Your task to perform on an android device: toggle priority inbox in the gmail app Image 0: 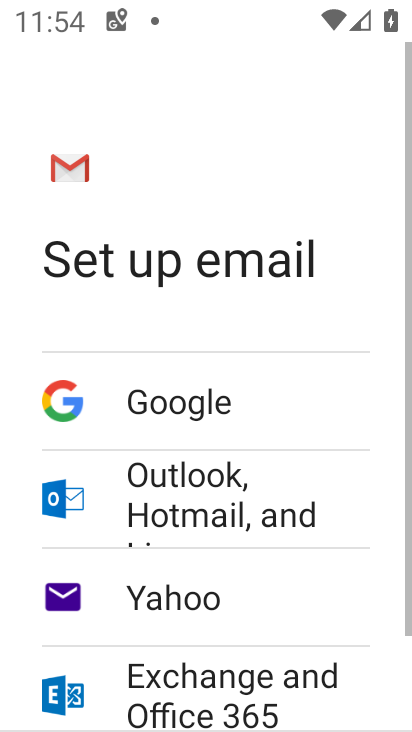
Step 0: press home button
Your task to perform on an android device: toggle priority inbox in the gmail app Image 1: 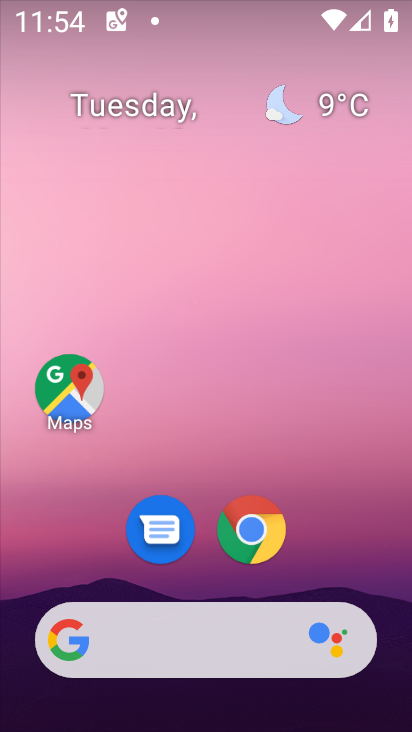
Step 1: drag from (311, 562) to (328, 180)
Your task to perform on an android device: toggle priority inbox in the gmail app Image 2: 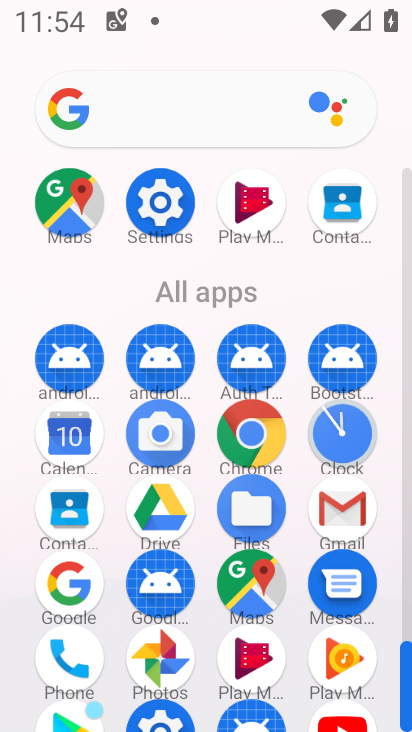
Step 2: click (338, 511)
Your task to perform on an android device: toggle priority inbox in the gmail app Image 3: 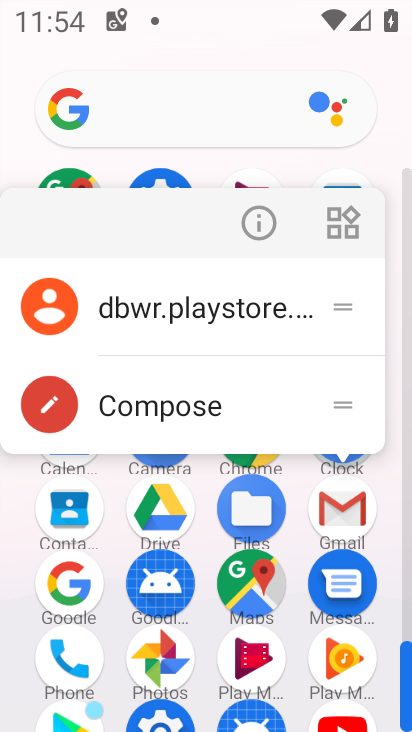
Step 3: click (359, 496)
Your task to perform on an android device: toggle priority inbox in the gmail app Image 4: 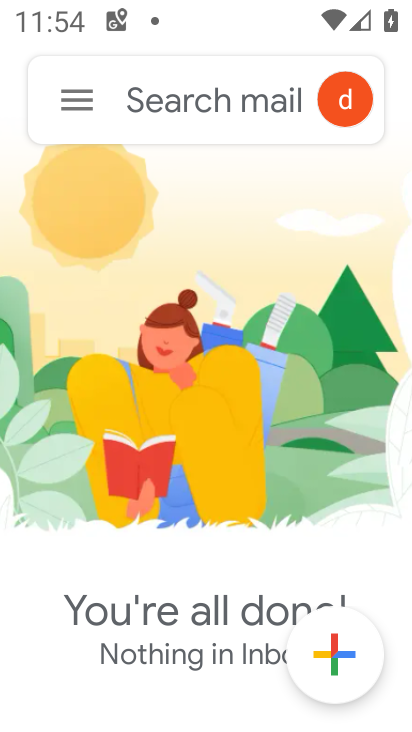
Step 4: click (83, 98)
Your task to perform on an android device: toggle priority inbox in the gmail app Image 5: 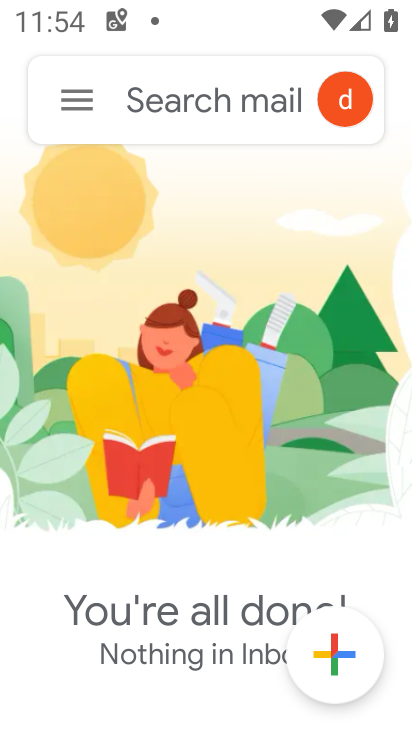
Step 5: click (74, 111)
Your task to perform on an android device: toggle priority inbox in the gmail app Image 6: 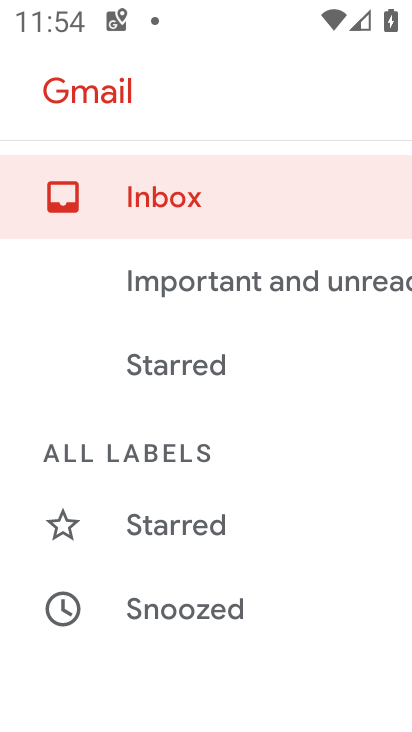
Step 6: drag from (224, 618) to (232, 280)
Your task to perform on an android device: toggle priority inbox in the gmail app Image 7: 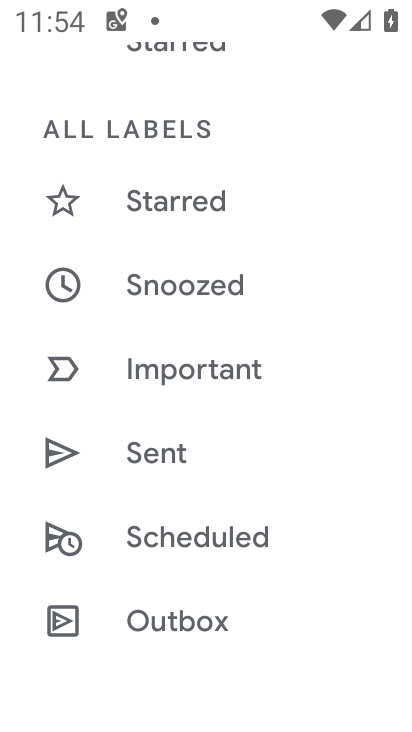
Step 7: drag from (276, 597) to (259, 173)
Your task to perform on an android device: toggle priority inbox in the gmail app Image 8: 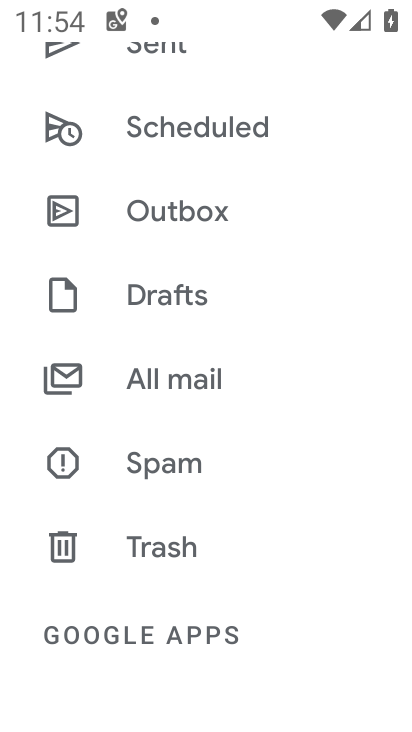
Step 8: drag from (192, 647) to (205, 168)
Your task to perform on an android device: toggle priority inbox in the gmail app Image 9: 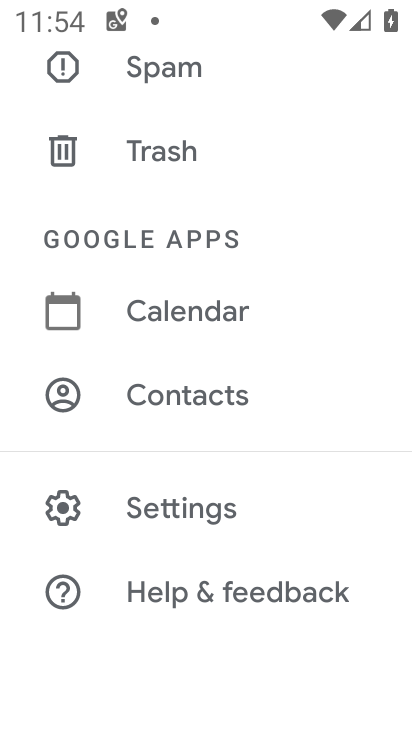
Step 9: click (182, 514)
Your task to perform on an android device: toggle priority inbox in the gmail app Image 10: 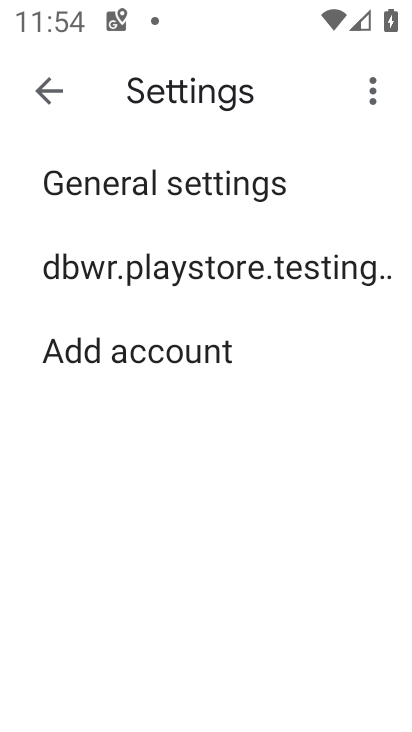
Step 10: click (201, 266)
Your task to perform on an android device: toggle priority inbox in the gmail app Image 11: 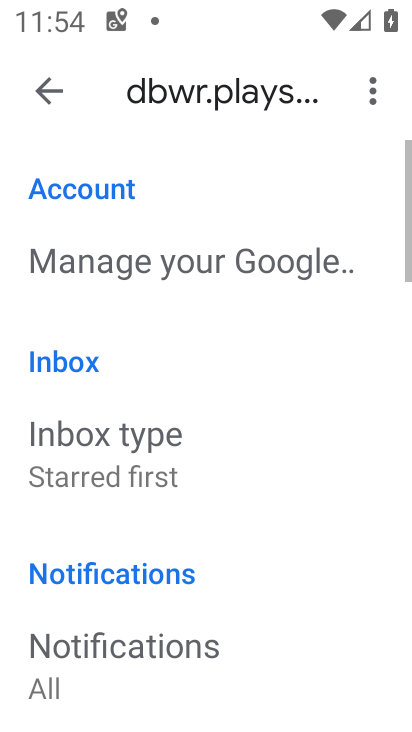
Step 11: drag from (245, 602) to (248, 229)
Your task to perform on an android device: toggle priority inbox in the gmail app Image 12: 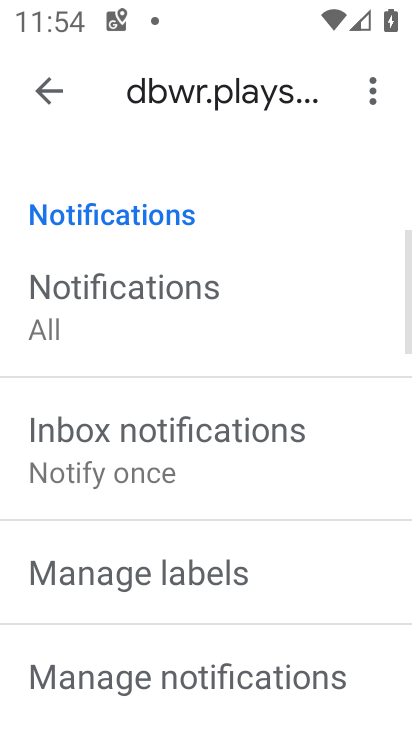
Step 12: drag from (224, 640) to (256, 268)
Your task to perform on an android device: toggle priority inbox in the gmail app Image 13: 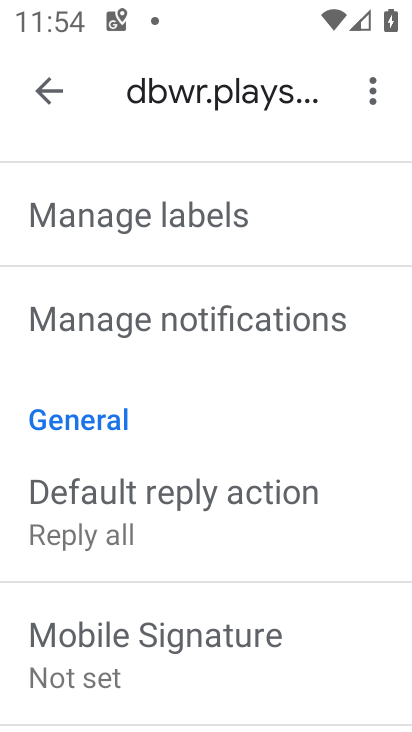
Step 13: drag from (266, 680) to (286, 309)
Your task to perform on an android device: toggle priority inbox in the gmail app Image 14: 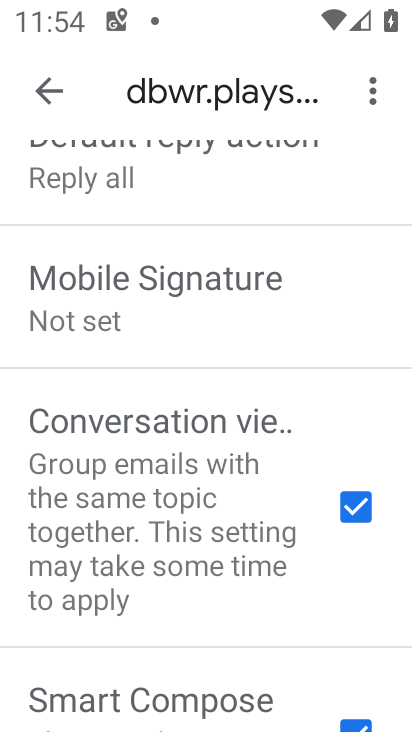
Step 14: drag from (294, 318) to (269, 680)
Your task to perform on an android device: toggle priority inbox in the gmail app Image 15: 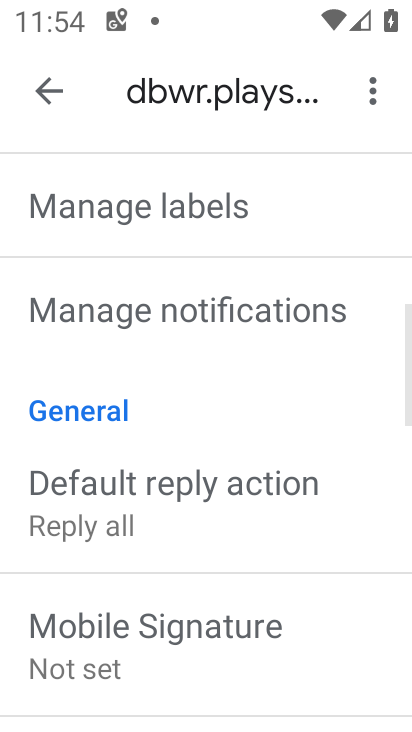
Step 15: drag from (247, 222) to (235, 615)
Your task to perform on an android device: toggle priority inbox in the gmail app Image 16: 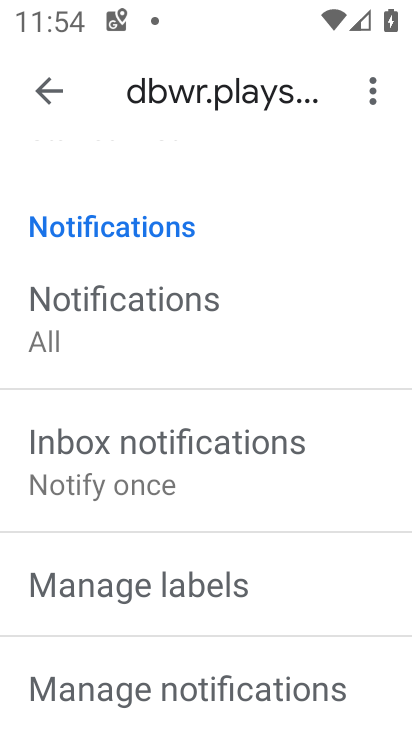
Step 16: drag from (186, 305) to (185, 607)
Your task to perform on an android device: toggle priority inbox in the gmail app Image 17: 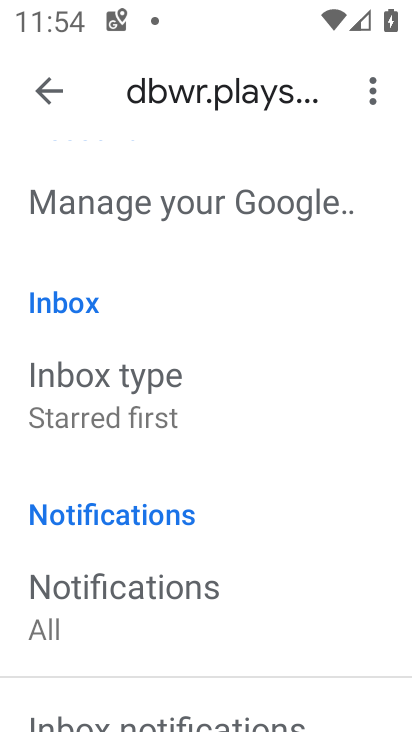
Step 17: click (107, 406)
Your task to perform on an android device: toggle priority inbox in the gmail app Image 18: 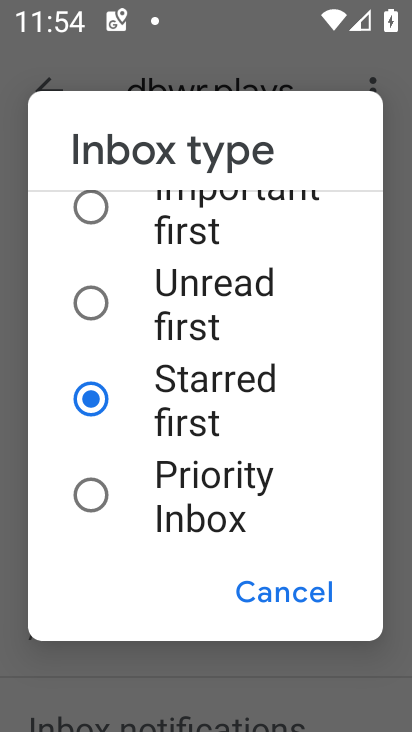
Step 18: click (185, 470)
Your task to perform on an android device: toggle priority inbox in the gmail app Image 19: 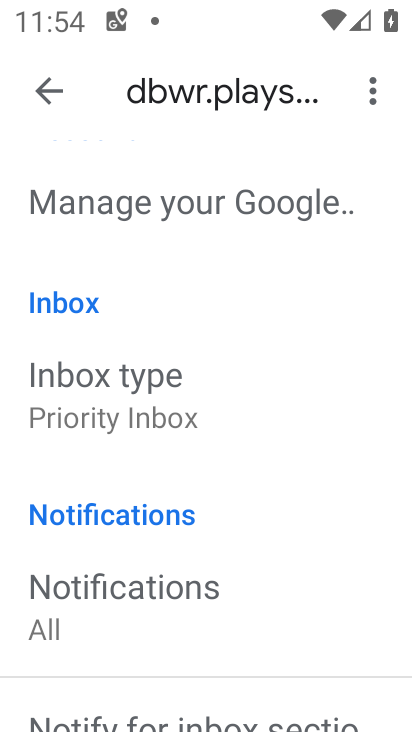
Step 19: task complete